Your task to perform on an android device: turn pop-ups off in chrome Image 0: 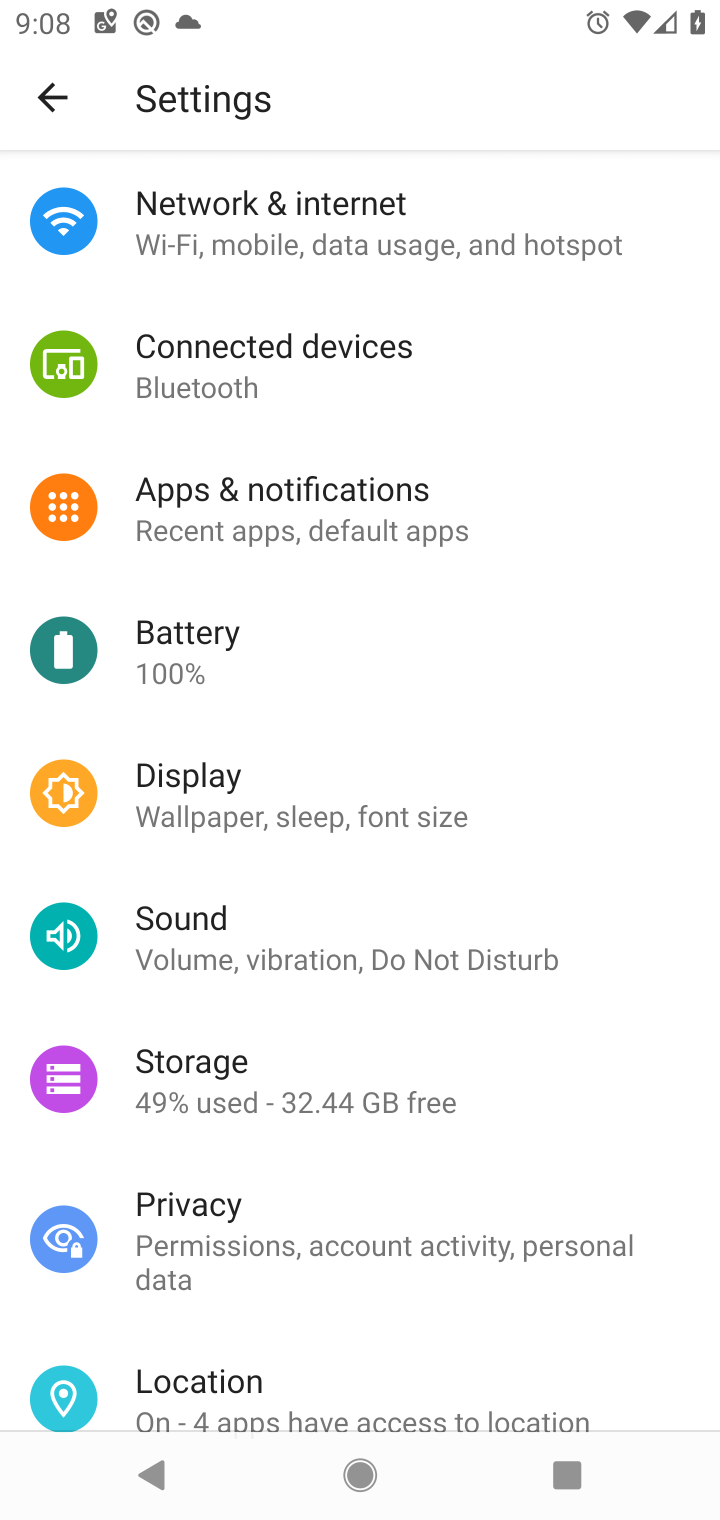
Step 0: press home button
Your task to perform on an android device: turn pop-ups off in chrome Image 1: 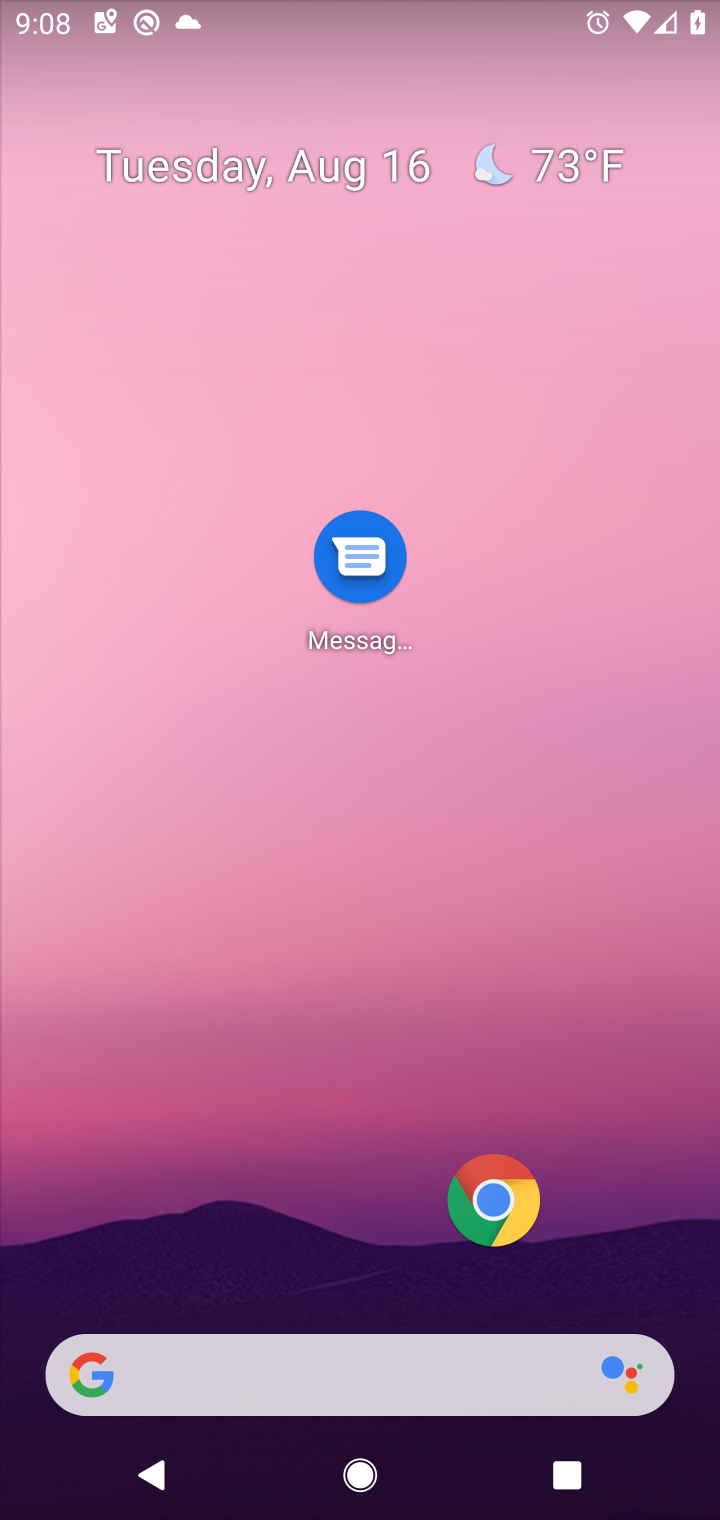
Step 1: click (503, 1203)
Your task to perform on an android device: turn pop-ups off in chrome Image 2: 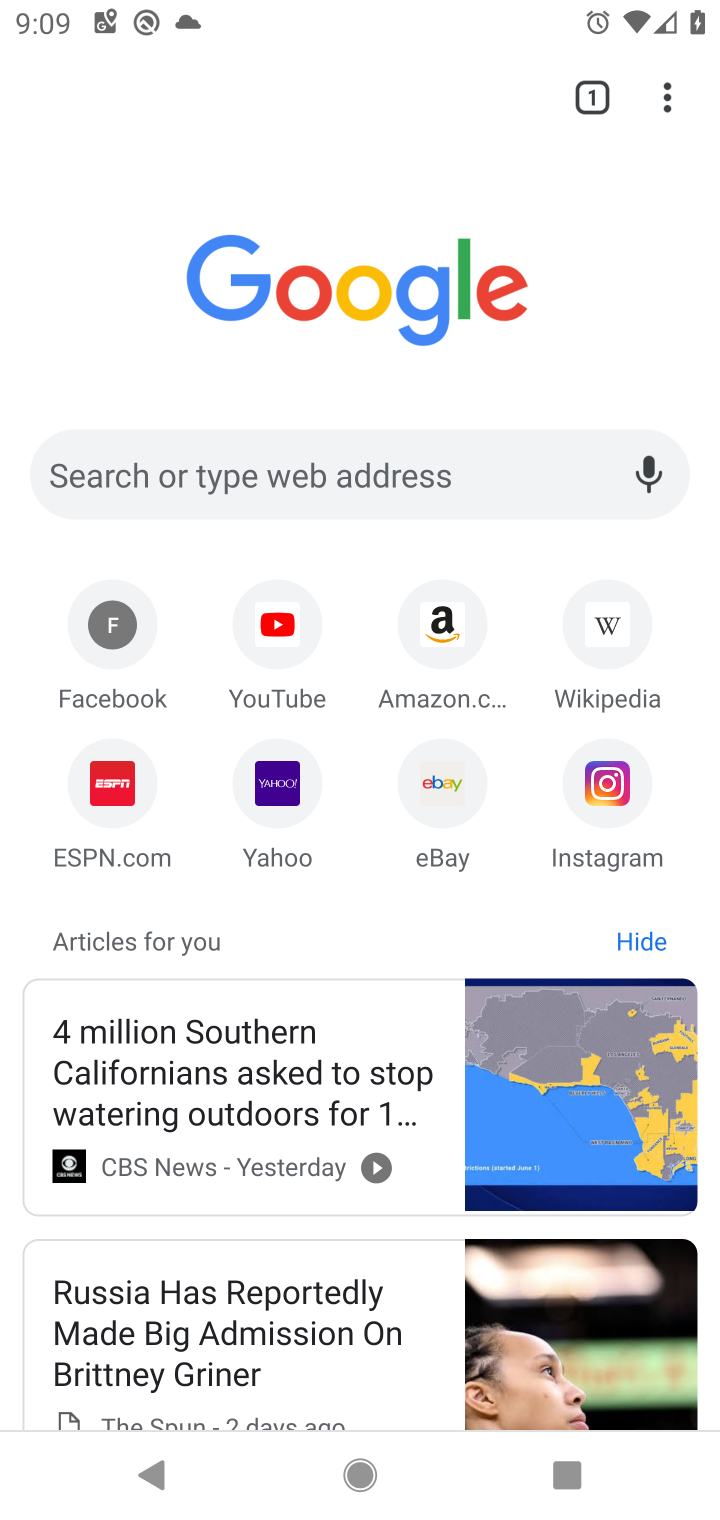
Step 2: click (672, 93)
Your task to perform on an android device: turn pop-ups off in chrome Image 3: 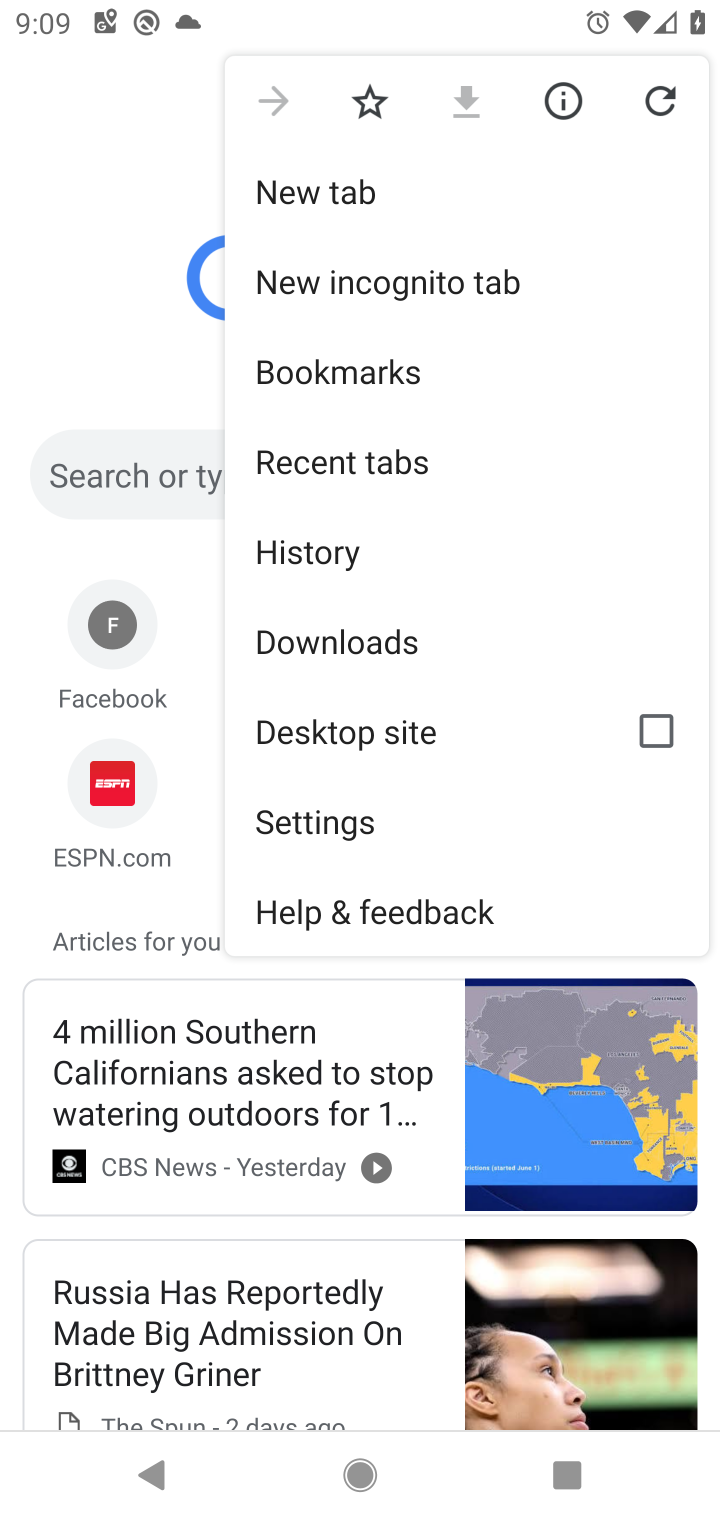
Step 3: click (330, 806)
Your task to perform on an android device: turn pop-ups off in chrome Image 4: 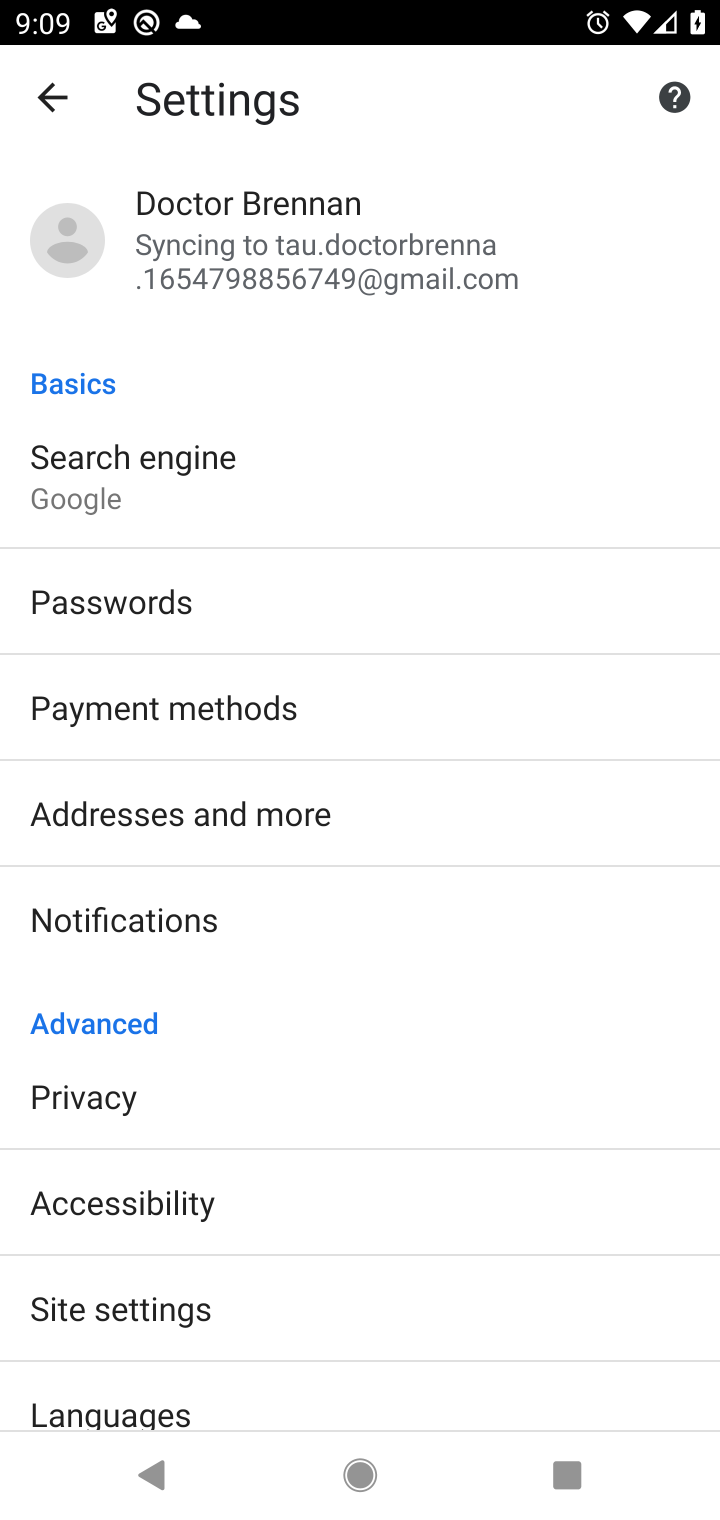
Step 4: click (152, 1322)
Your task to perform on an android device: turn pop-ups off in chrome Image 5: 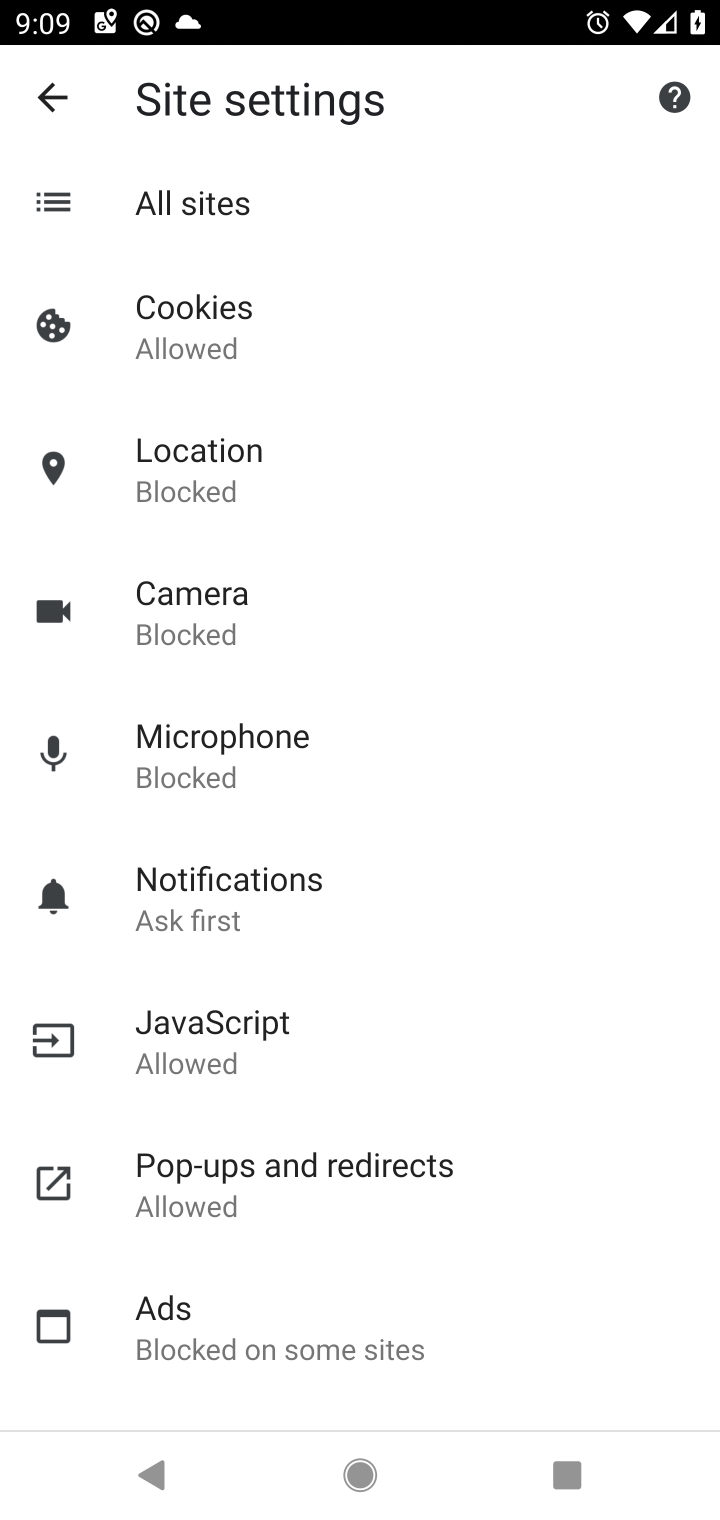
Step 5: click (259, 1193)
Your task to perform on an android device: turn pop-ups off in chrome Image 6: 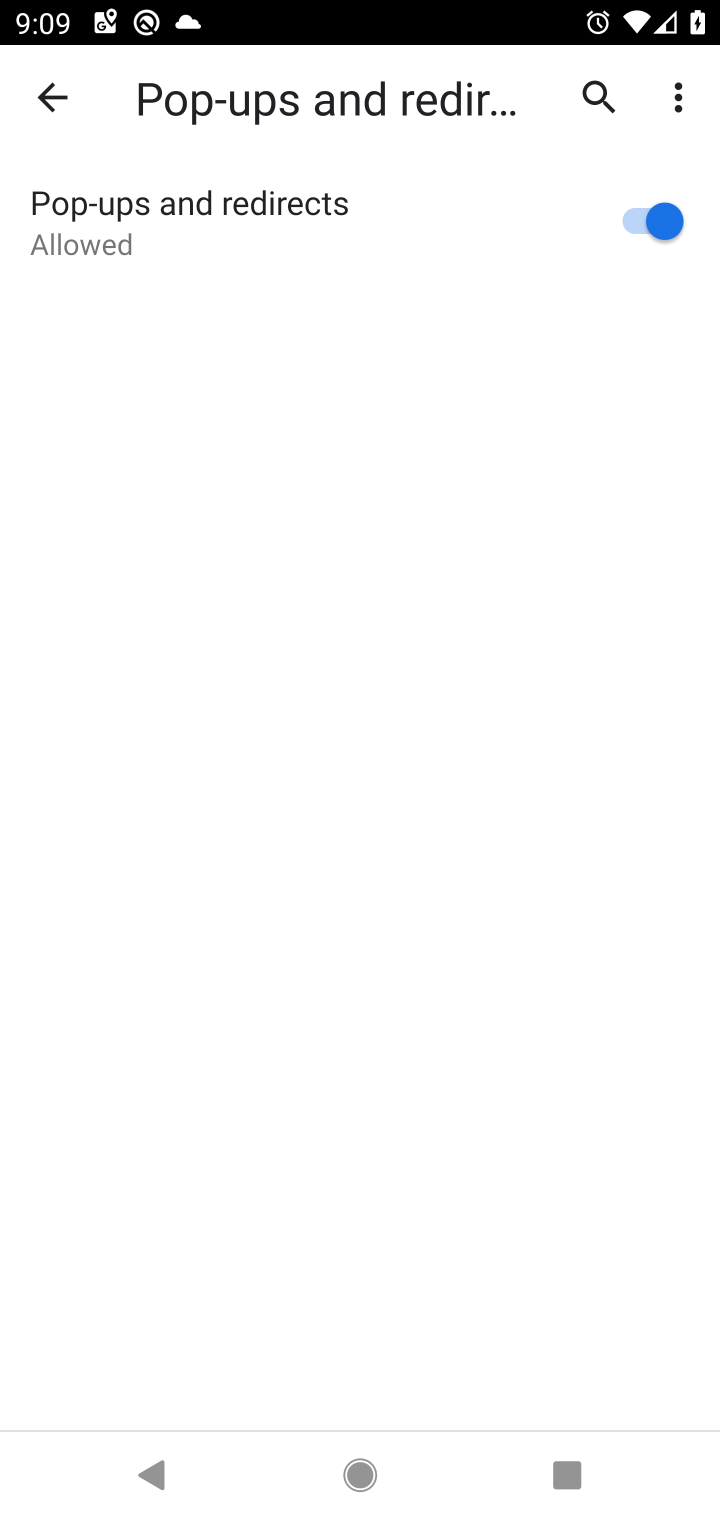
Step 6: click (660, 217)
Your task to perform on an android device: turn pop-ups off in chrome Image 7: 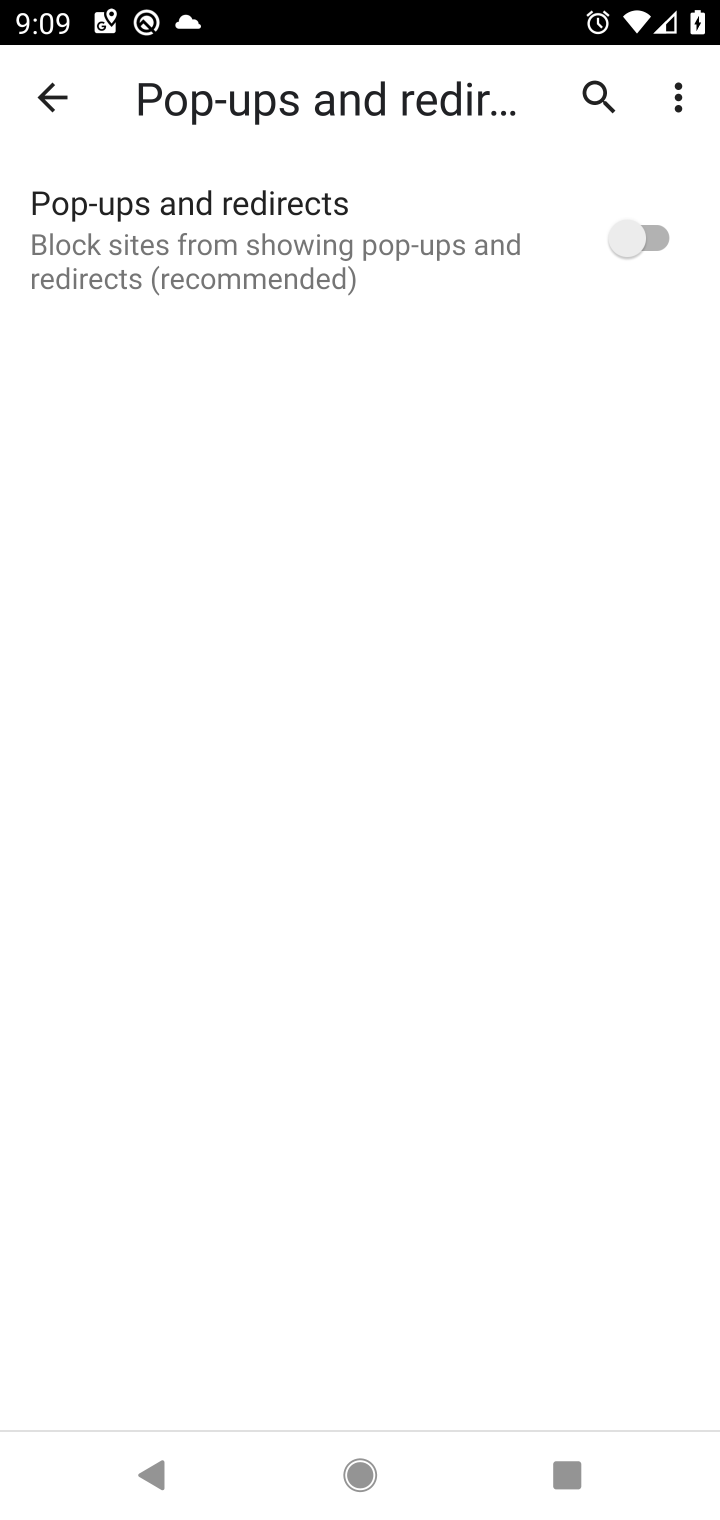
Step 7: task complete